Your task to perform on an android device: Open settings Image 0: 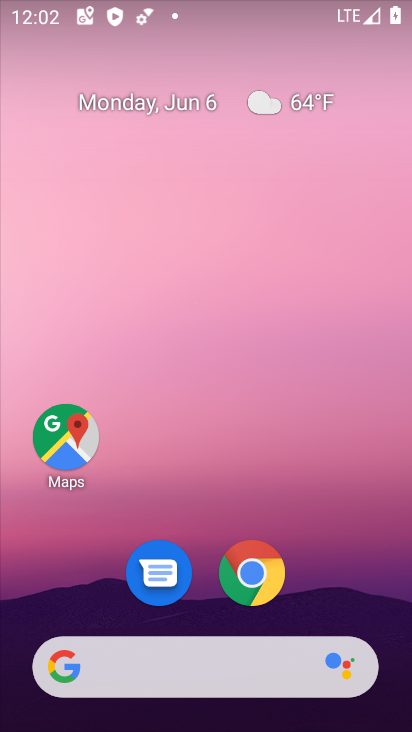
Step 0: drag from (5, 687) to (305, 196)
Your task to perform on an android device: Open settings Image 1: 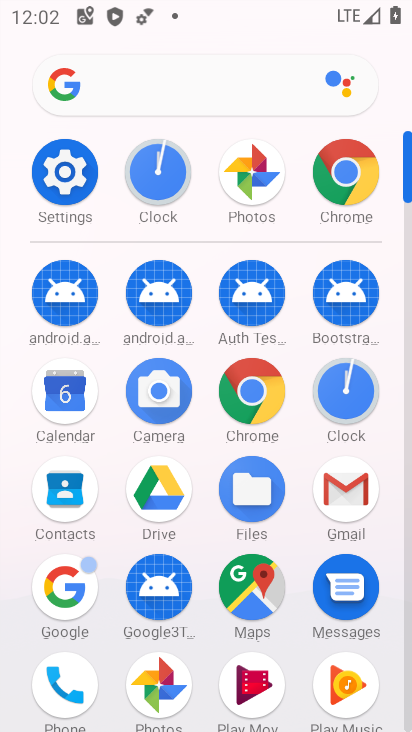
Step 1: click (74, 164)
Your task to perform on an android device: Open settings Image 2: 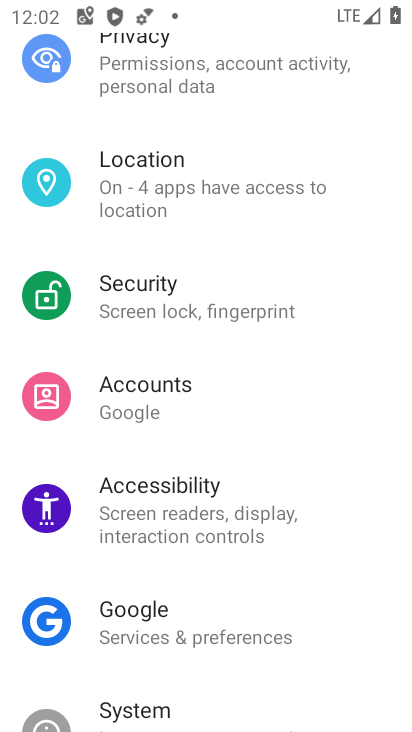
Step 2: task complete